Your task to perform on an android device: Toggle the flashlight Image 0: 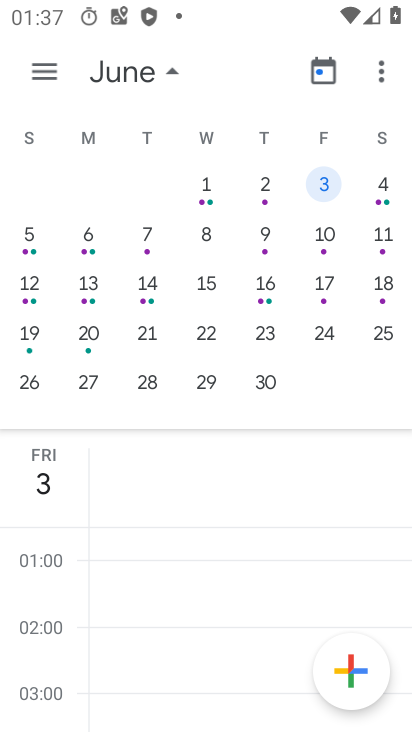
Step 0: press home button
Your task to perform on an android device: Toggle the flashlight Image 1: 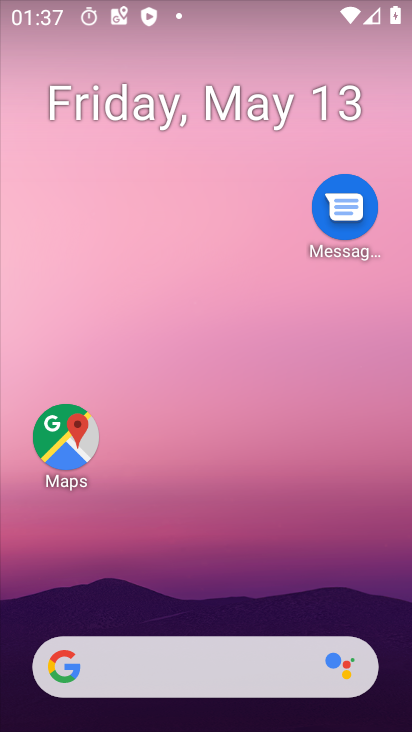
Step 1: task complete